Your task to perform on an android device: When is my next appointment? Image 0: 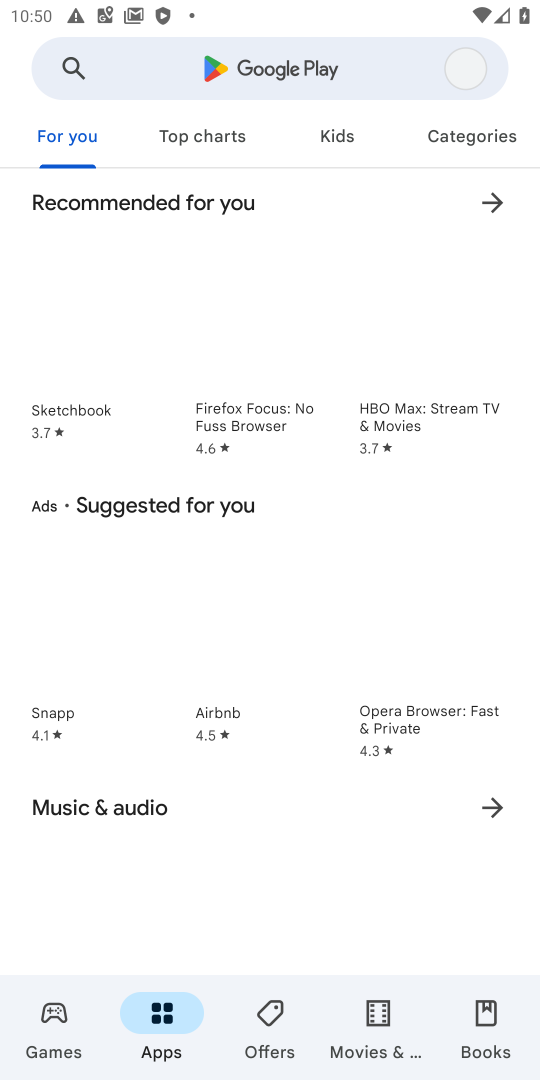
Step 0: press home button
Your task to perform on an android device: When is my next appointment? Image 1: 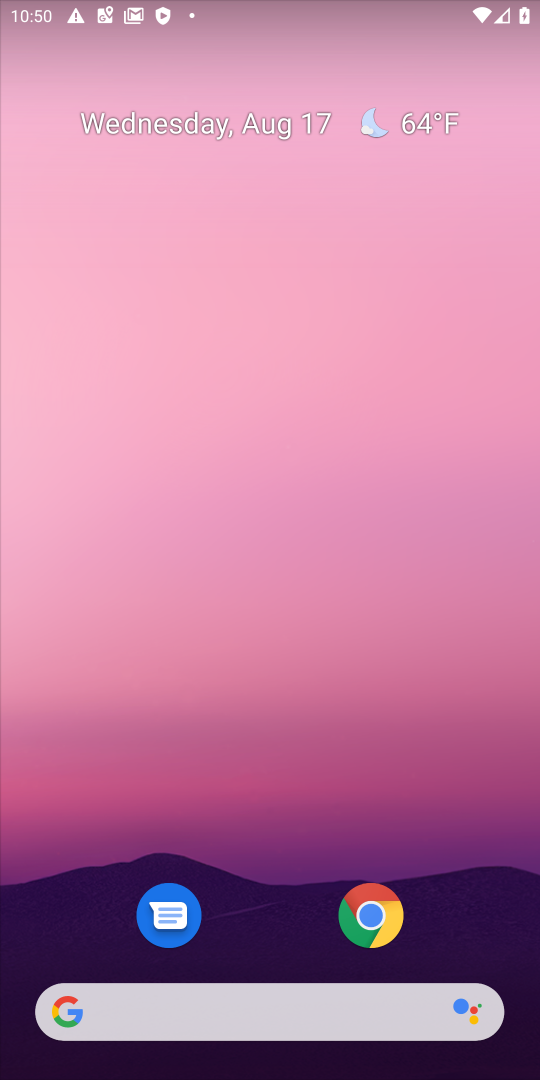
Step 1: drag from (275, 863) to (271, 239)
Your task to perform on an android device: When is my next appointment? Image 2: 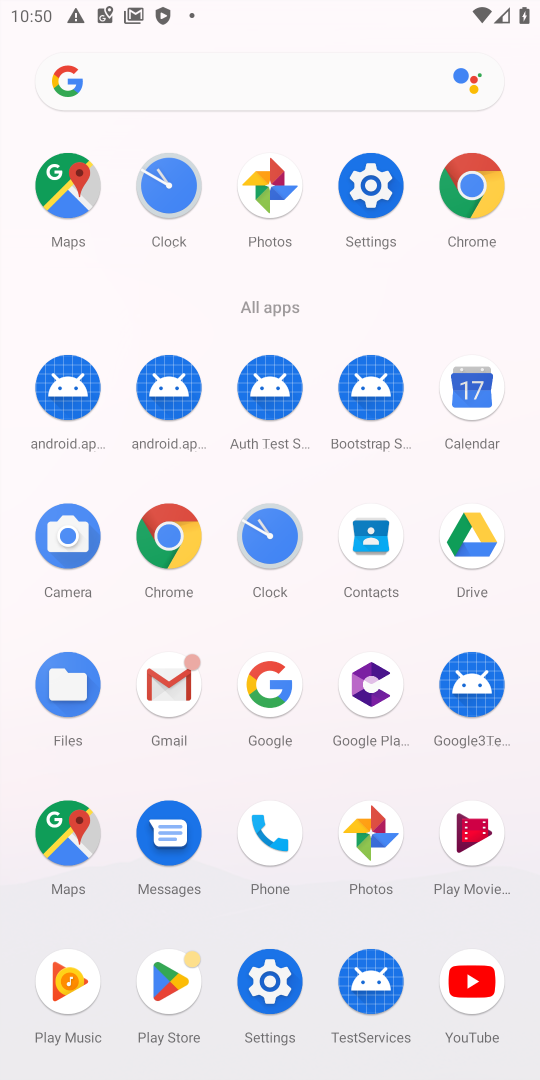
Step 2: click (464, 373)
Your task to perform on an android device: When is my next appointment? Image 3: 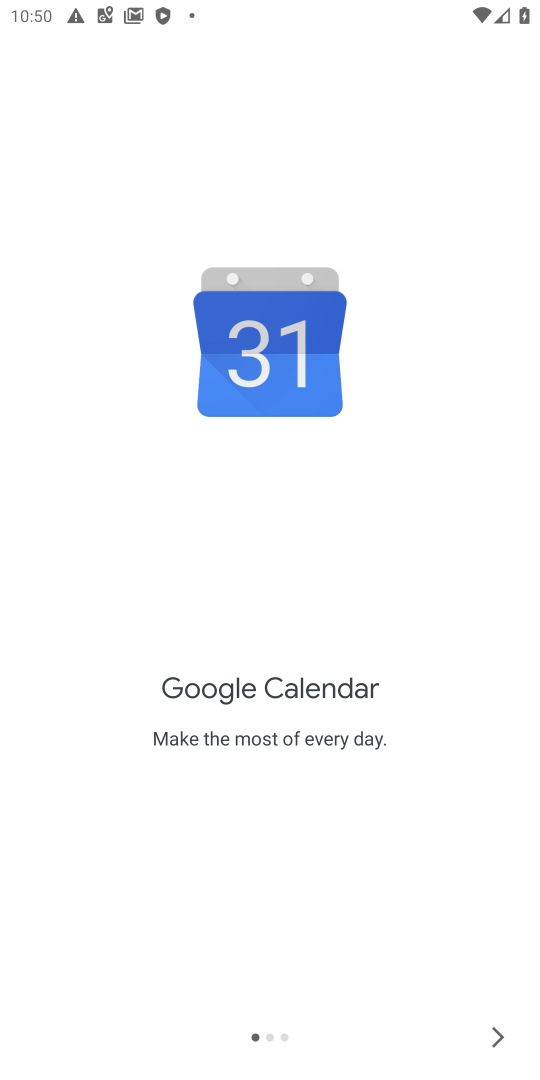
Step 3: click (486, 1036)
Your task to perform on an android device: When is my next appointment? Image 4: 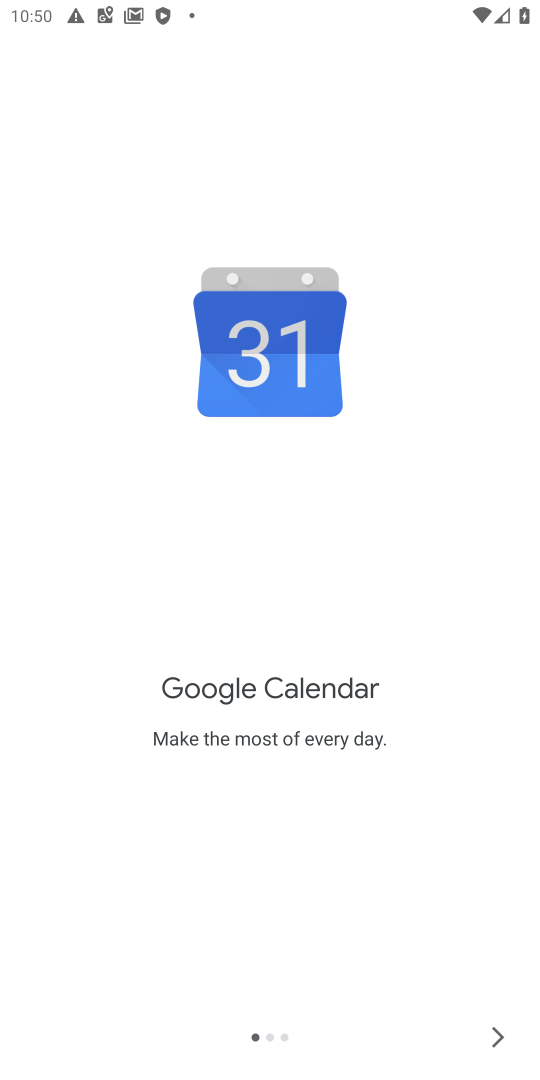
Step 4: click (486, 1036)
Your task to perform on an android device: When is my next appointment? Image 5: 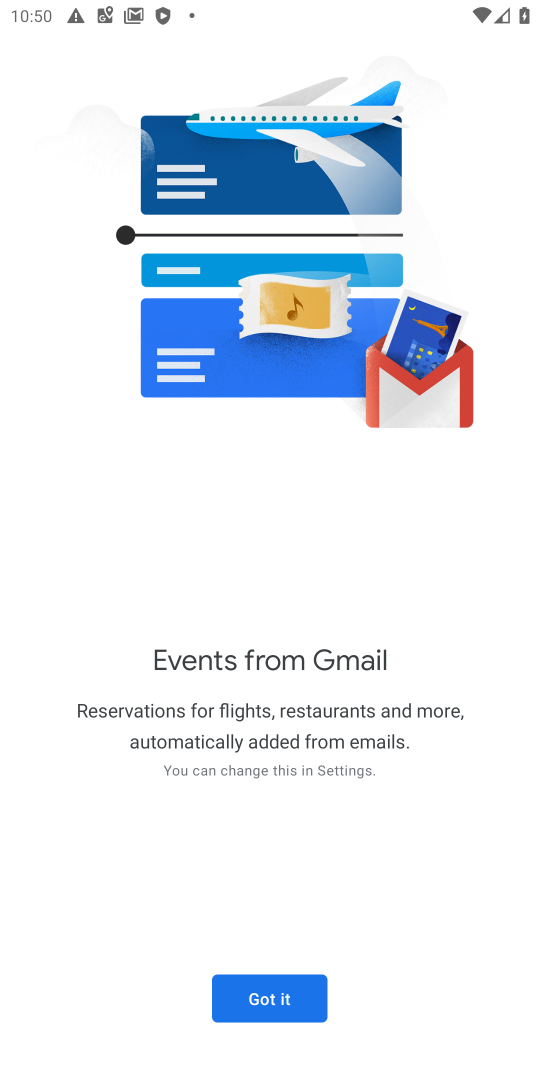
Step 5: click (266, 987)
Your task to perform on an android device: When is my next appointment? Image 6: 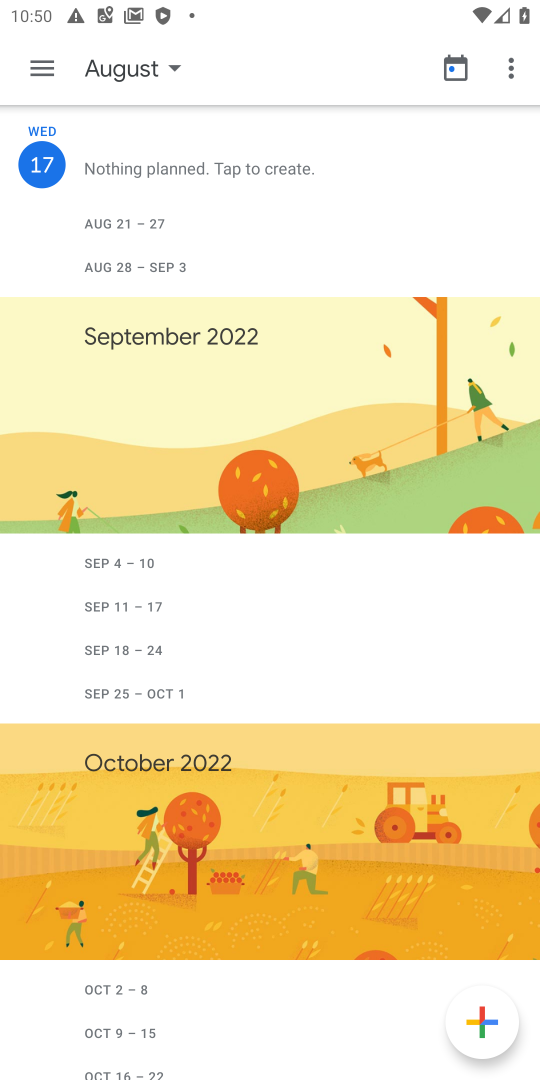
Step 6: click (39, 68)
Your task to perform on an android device: When is my next appointment? Image 7: 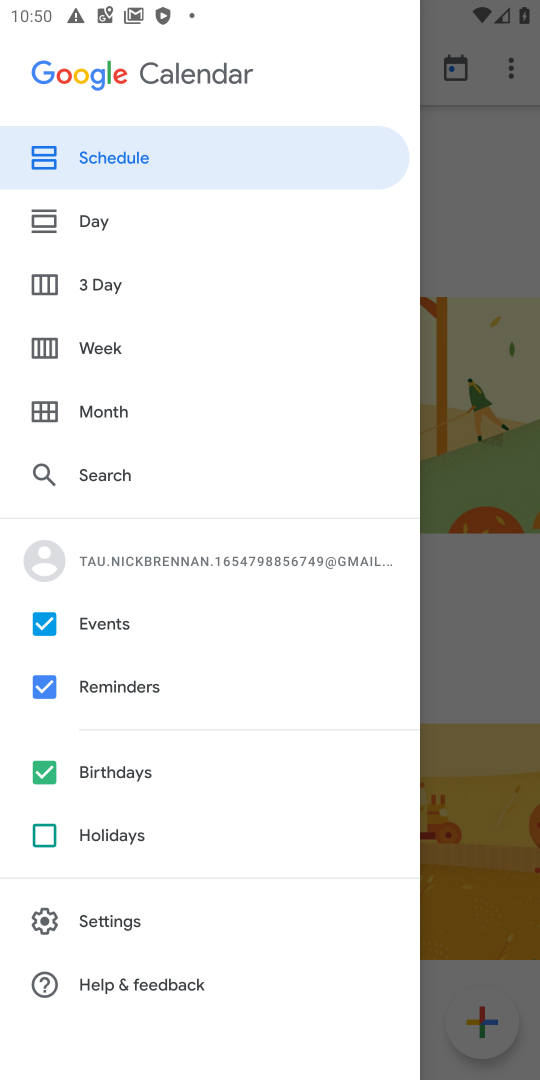
Step 7: click (113, 357)
Your task to perform on an android device: When is my next appointment? Image 8: 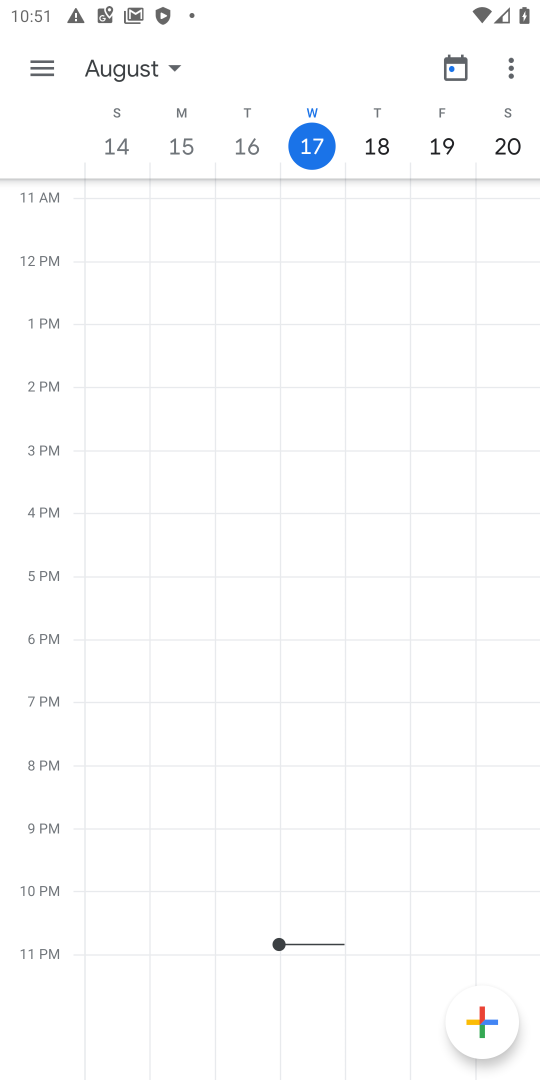
Step 8: task complete